Your task to perform on an android device: What is the news today? Image 0: 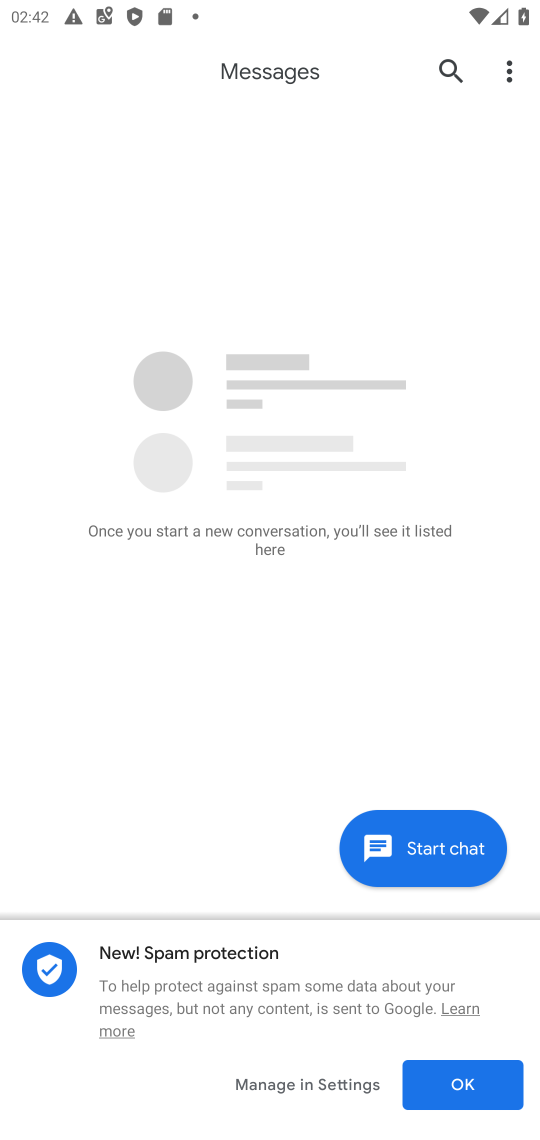
Step 0: press home button
Your task to perform on an android device: What is the news today? Image 1: 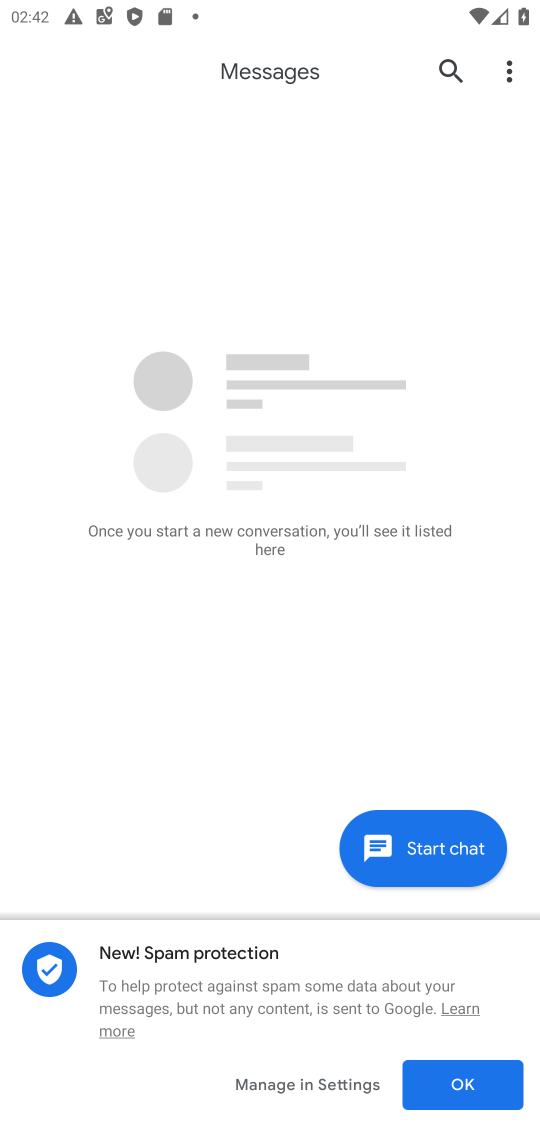
Step 1: press home button
Your task to perform on an android device: What is the news today? Image 2: 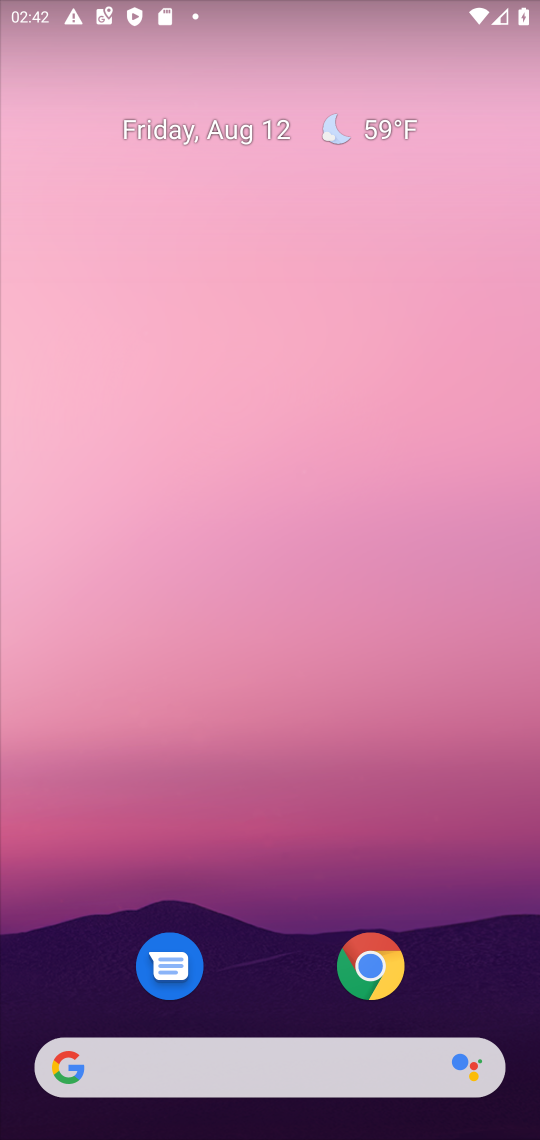
Step 2: drag from (298, 452) to (331, 0)
Your task to perform on an android device: What is the news today? Image 3: 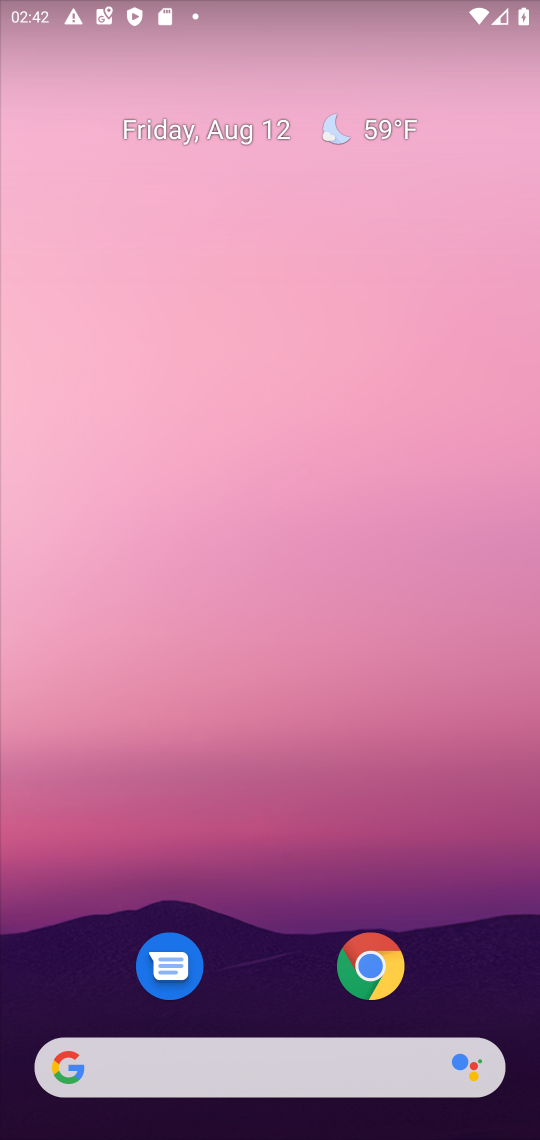
Step 3: click (386, 130)
Your task to perform on an android device: What is the news today? Image 4: 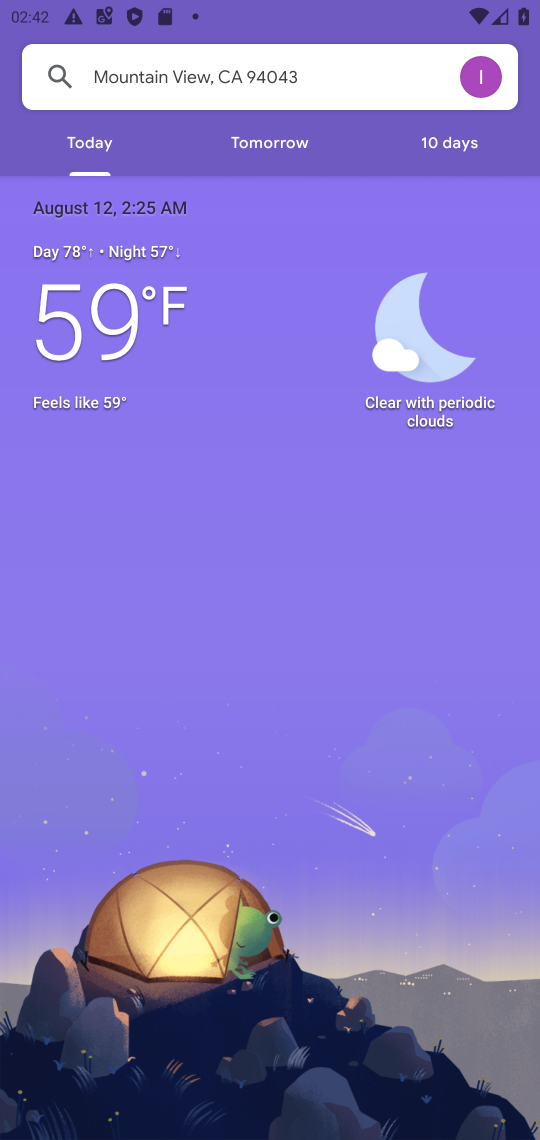
Step 4: press home button
Your task to perform on an android device: What is the news today? Image 5: 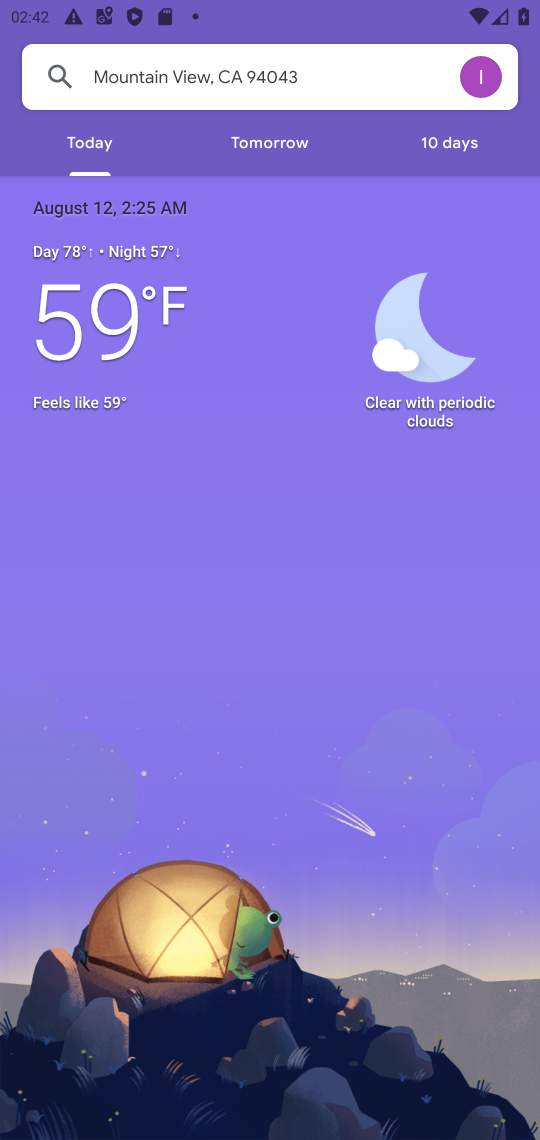
Step 5: press home button
Your task to perform on an android device: What is the news today? Image 6: 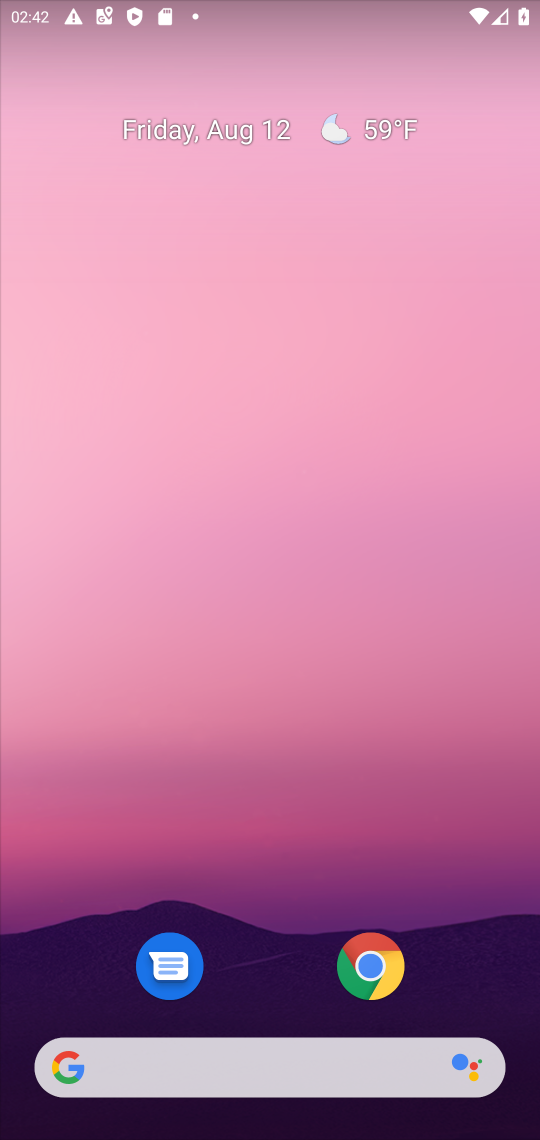
Step 6: drag from (221, 895) to (358, 76)
Your task to perform on an android device: What is the news today? Image 7: 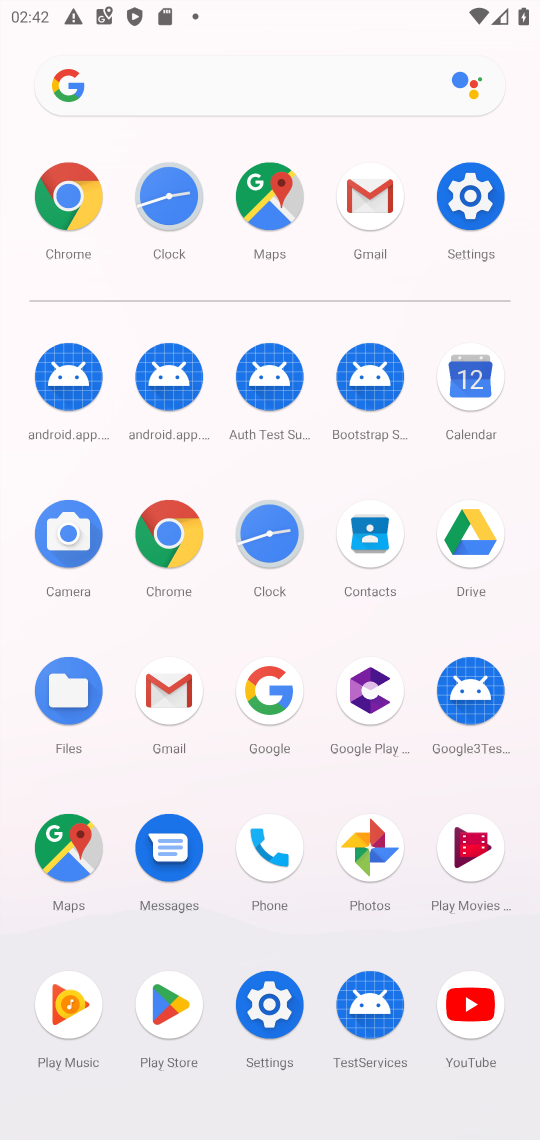
Step 7: click (174, 526)
Your task to perform on an android device: What is the news today? Image 8: 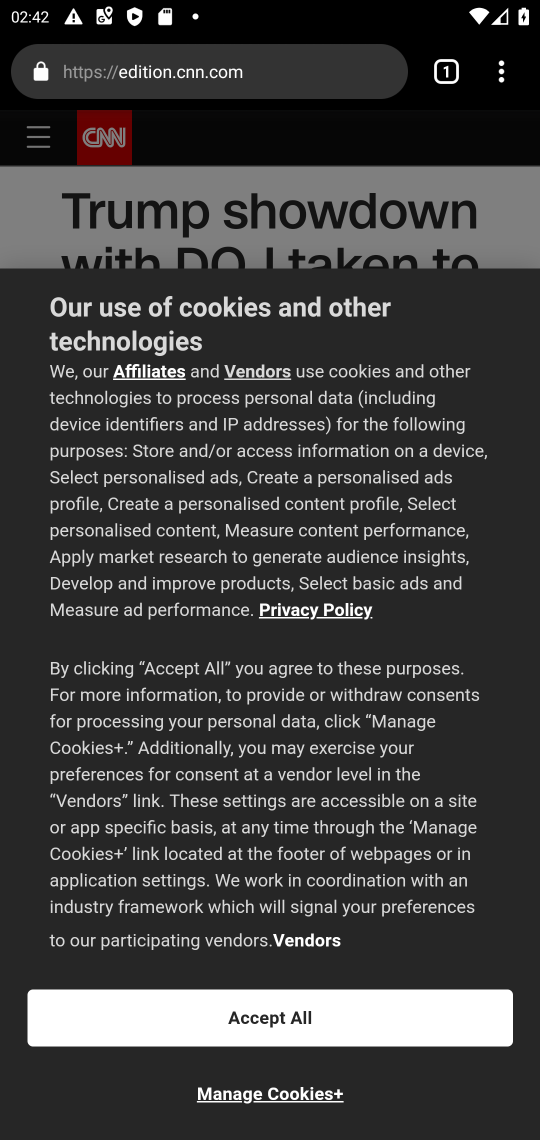
Step 8: click (209, 75)
Your task to perform on an android device: What is the news today? Image 9: 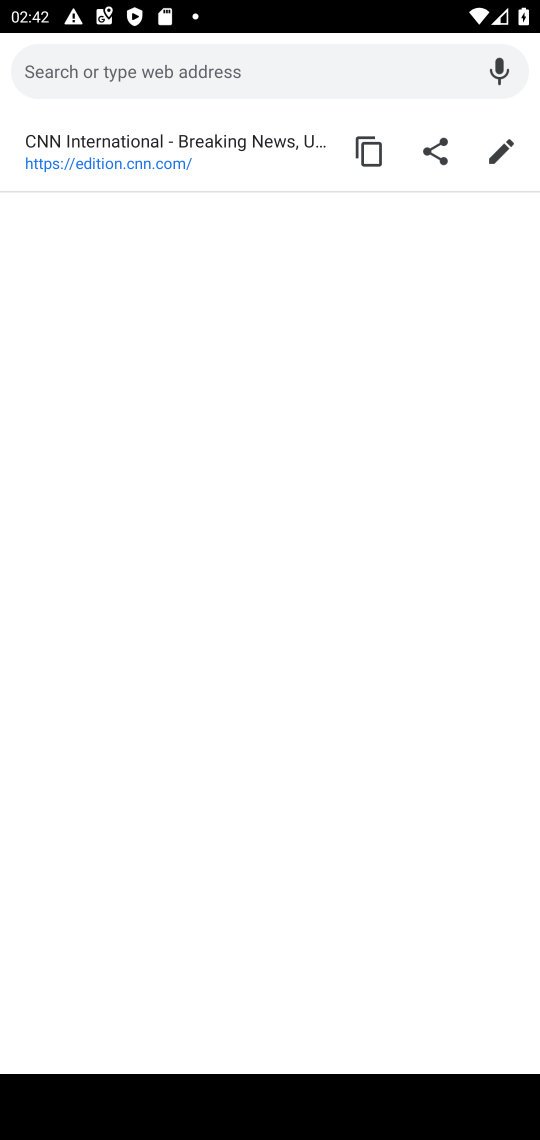
Step 9: type "news"
Your task to perform on an android device: What is the news today? Image 10: 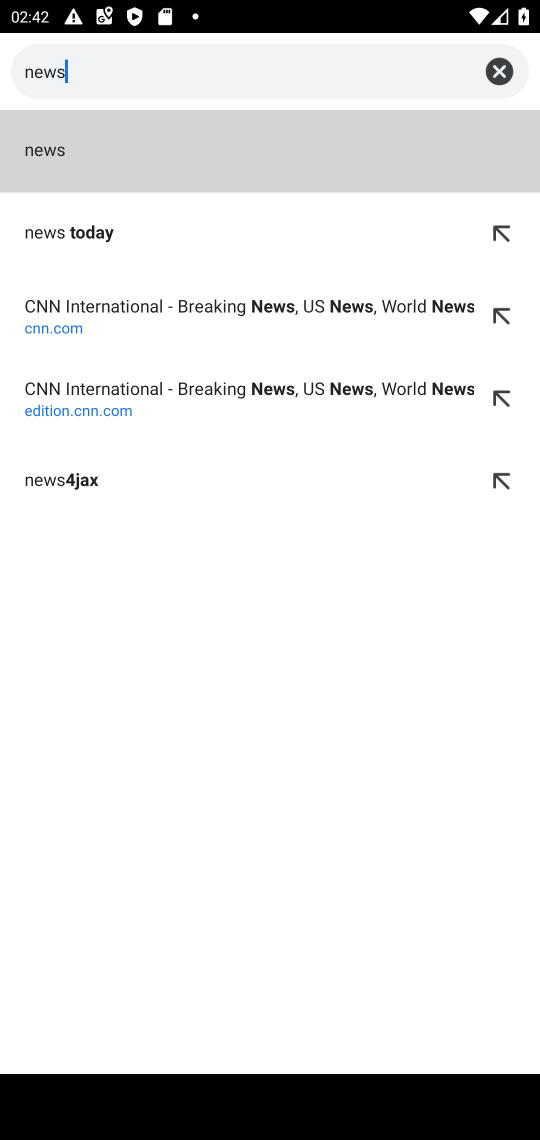
Step 10: click (46, 140)
Your task to perform on an android device: What is the news today? Image 11: 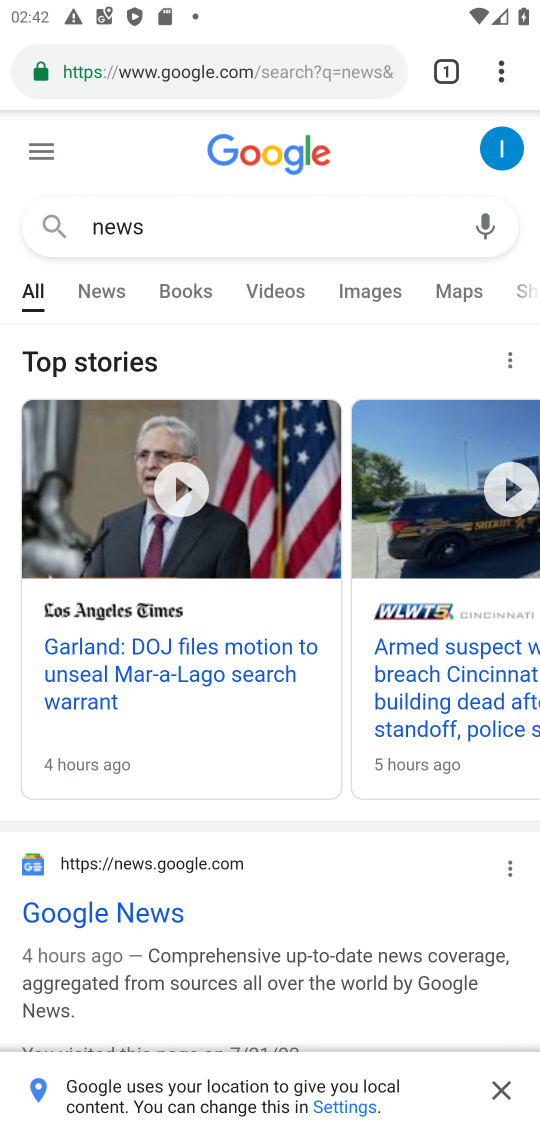
Step 11: click (128, 913)
Your task to perform on an android device: What is the news today? Image 12: 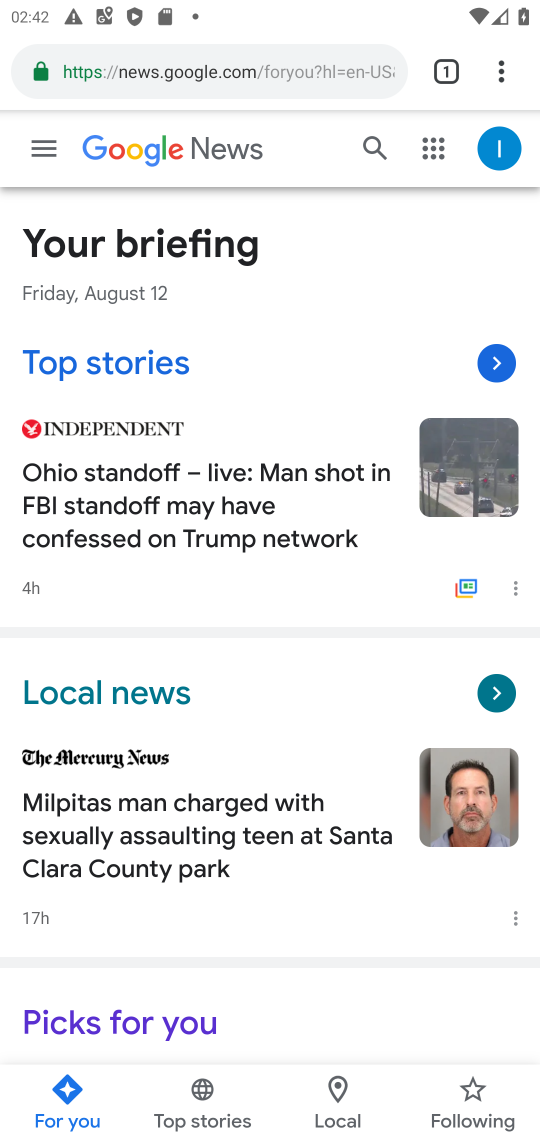
Step 12: task complete